Your task to perform on an android device: Search for bose quietcomfort 35 on amazon.com, select the first entry, and add it to the cart. Image 0: 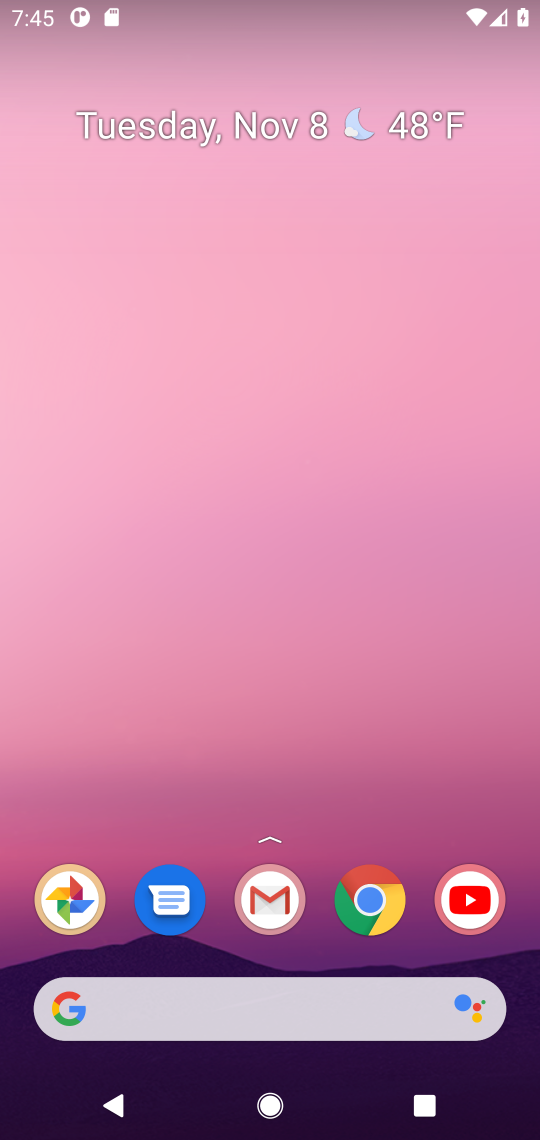
Step 0: drag from (267, 956) to (271, 175)
Your task to perform on an android device: Search for bose quietcomfort 35 on amazon.com, select the first entry, and add it to the cart. Image 1: 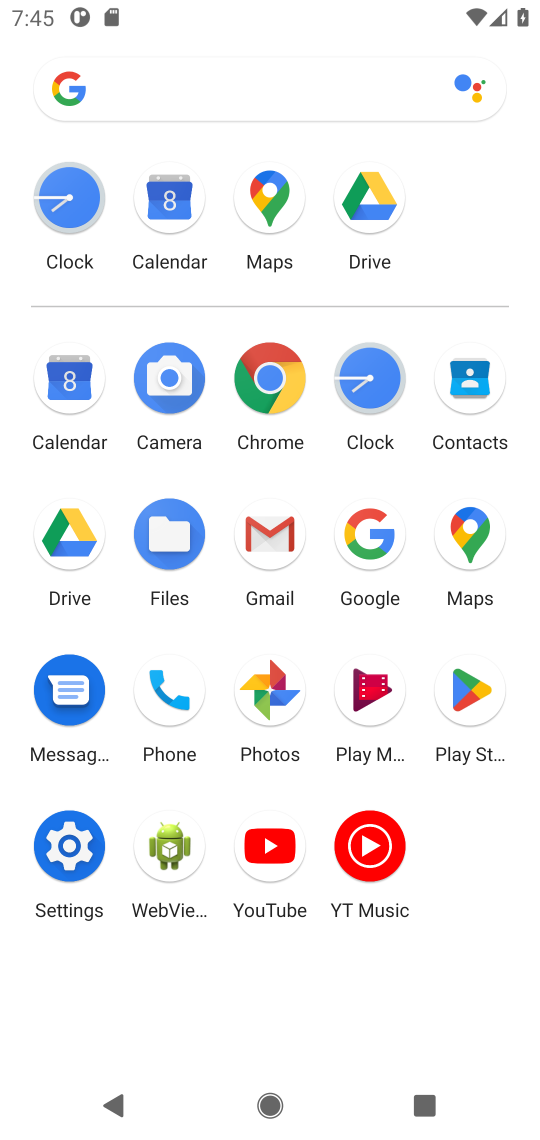
Step 1: click (368, 539)
Your task to perform on an android device: Search for bose quietcomfort 35 on amazon.com, select the first entry, and add it to the cart. Image 2: 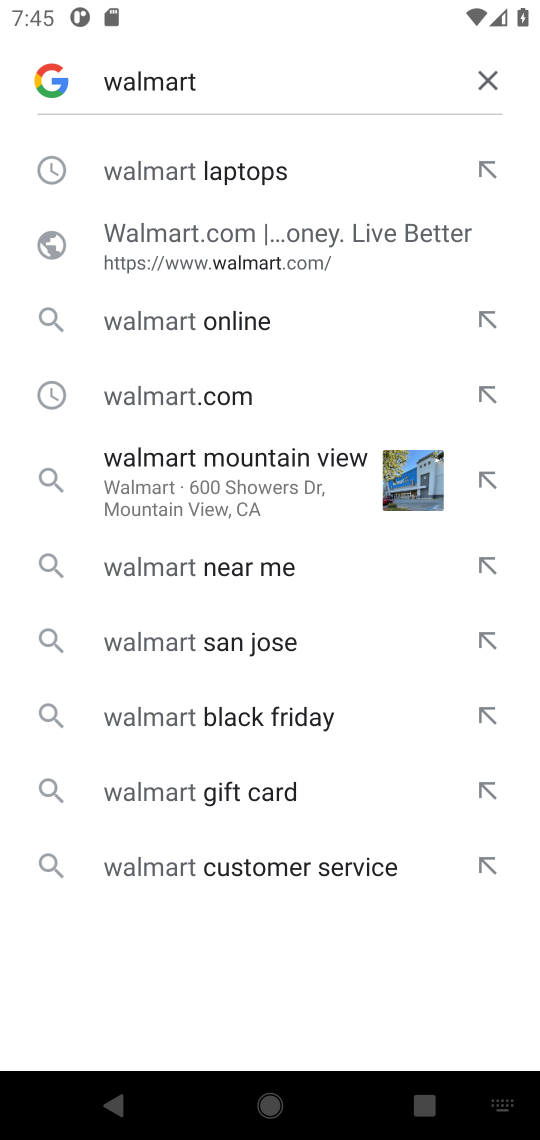
Step 2: click (477, 89)
Your task to perform on an android device: Search for bose quietcomfort 35 on amazon.com, select the first entry, and add it to the cart. Image 3: 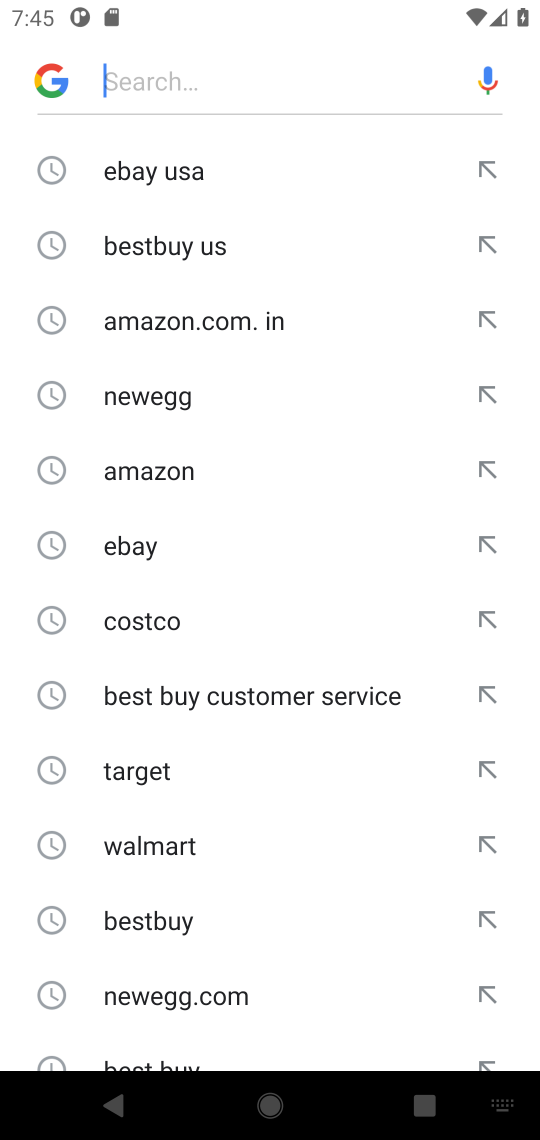
Step 3: click (226, 72)
Your task to perform on an android device: Search for bose quietcomfort 35 on amazon.com, select the first entry, and add it to the cart. Image 4: 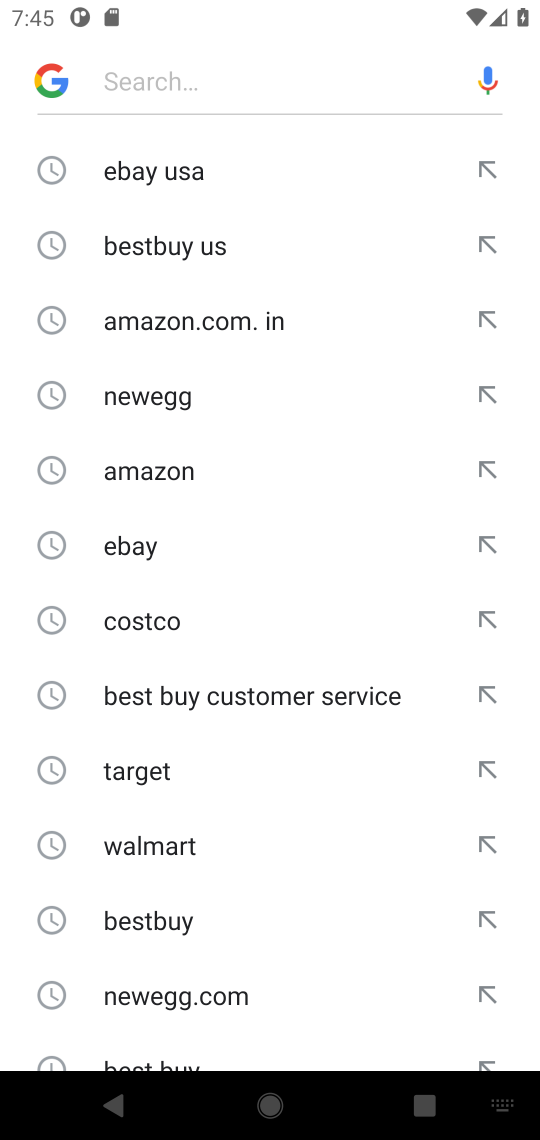
Step 4: click (266, 63)
Your task to perform on an android device: Search for bose quietcomfort 35 on amazon.com, select the first entry, and add it to the cart. Image 5: 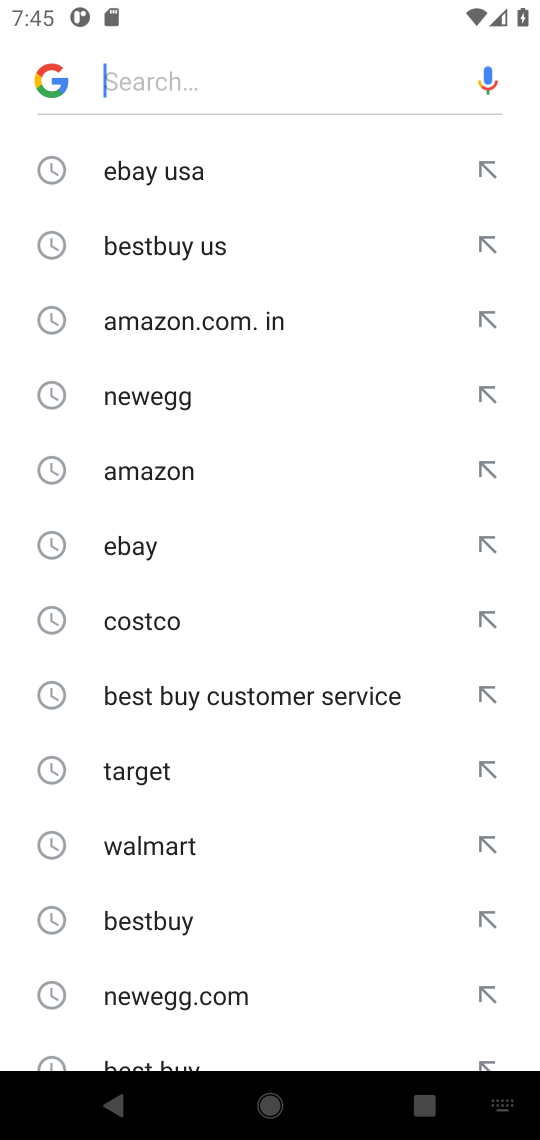
Step 5: type "amazon "
Your task to perform on an android device: Search for bose quietcomfort 35 on amazon.com, select the first entry, and add it to the cart. Image 6: 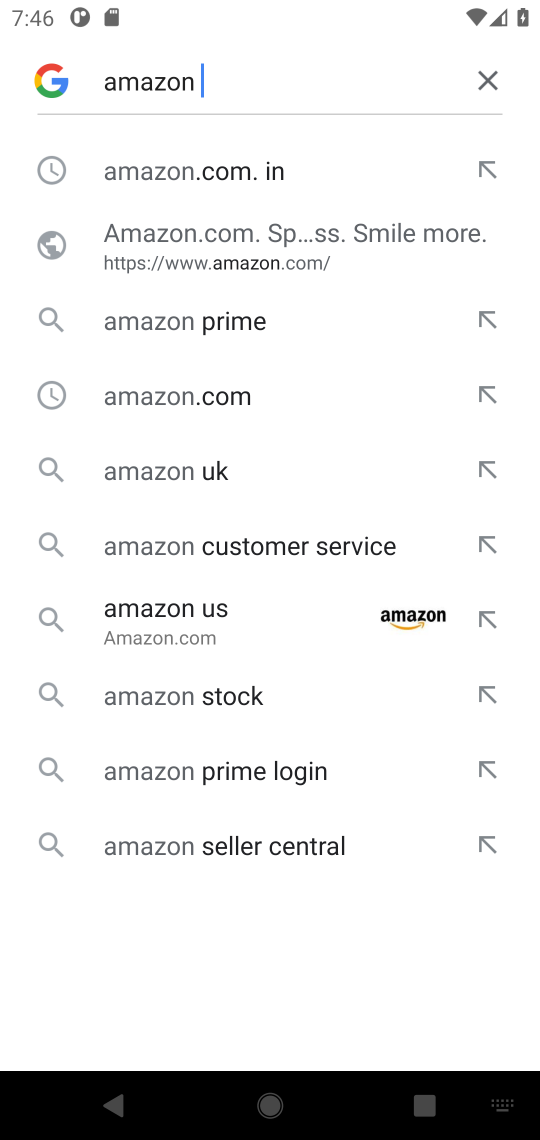
Step 6: click (249, 176)
Your task to perform on an android device: Search for bose quietcomfort 35 on amazon.com, select the first entry, and add it to the cart. Image 7: 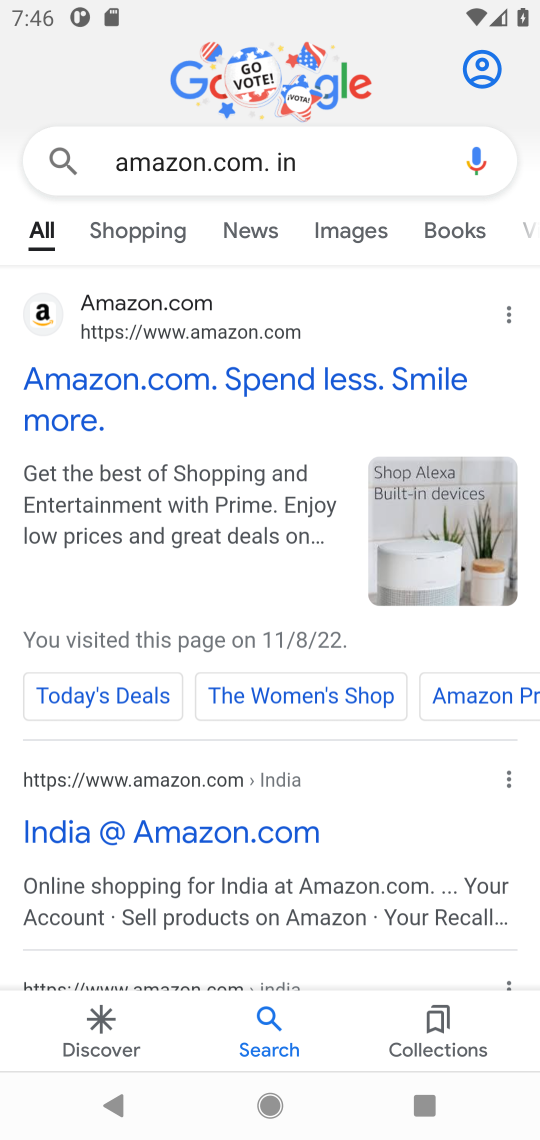
Step 7: click (37, 299)
Your task to perform on an android device: Search for bose quietcomfort 35 on amazon.com, select the first entry, and add it to the cart. Image 8: 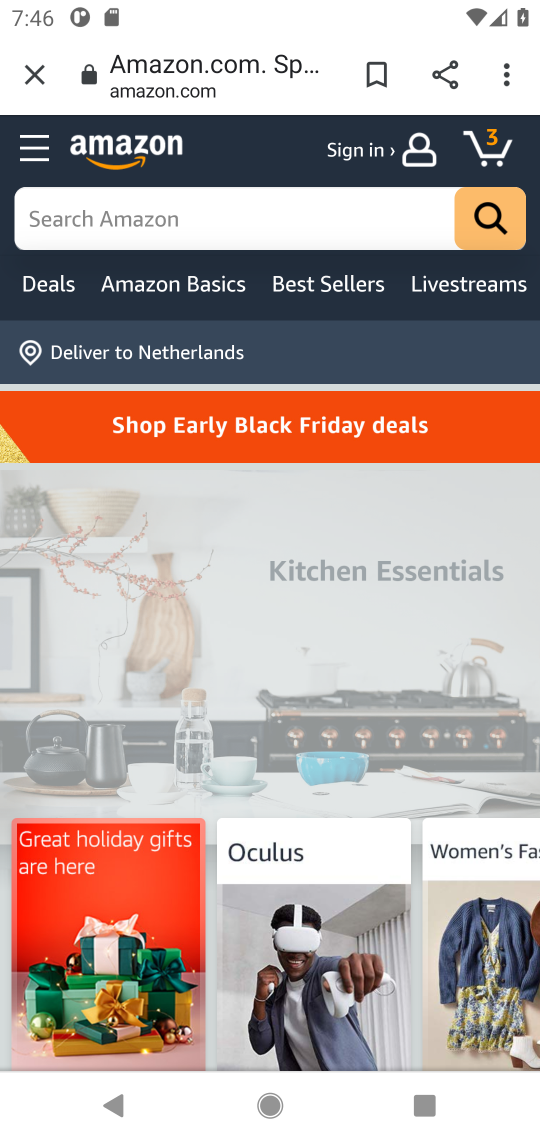
Step 8: click (235, 209)
Your task to perform on an android device: Search for bose quietcomfort 35 on amazon.com, select the first entry, and add it to the cart. Image 9: 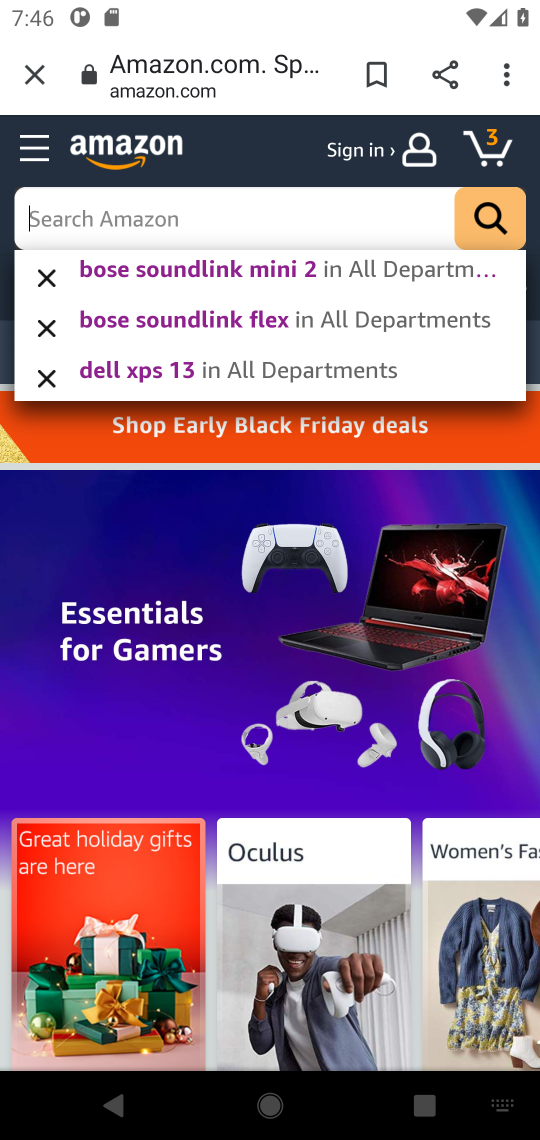
Step 9: type "bose quietcomfort 35 "
Your task to perform on an android device: Search for bose quietcomfort 35 on amazon.com, select the first entry, and add it to the cart. Image 10: 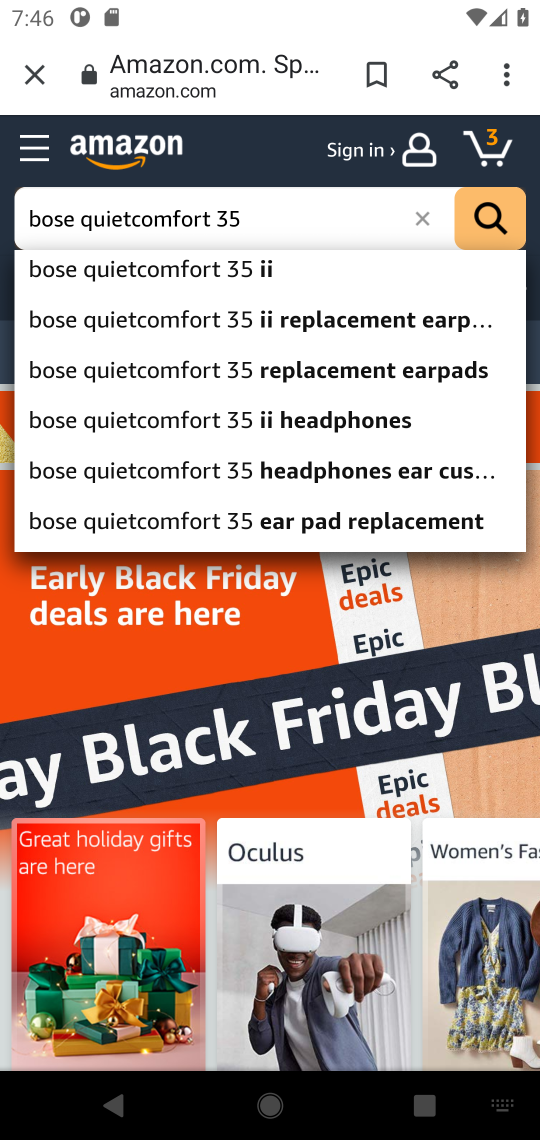
Step 10: click (241, 266)
Your task to perform on an android device: Search for bose quietcomfort 35 on amazon.com, select the first entry, and add it to the cart. Image 11: 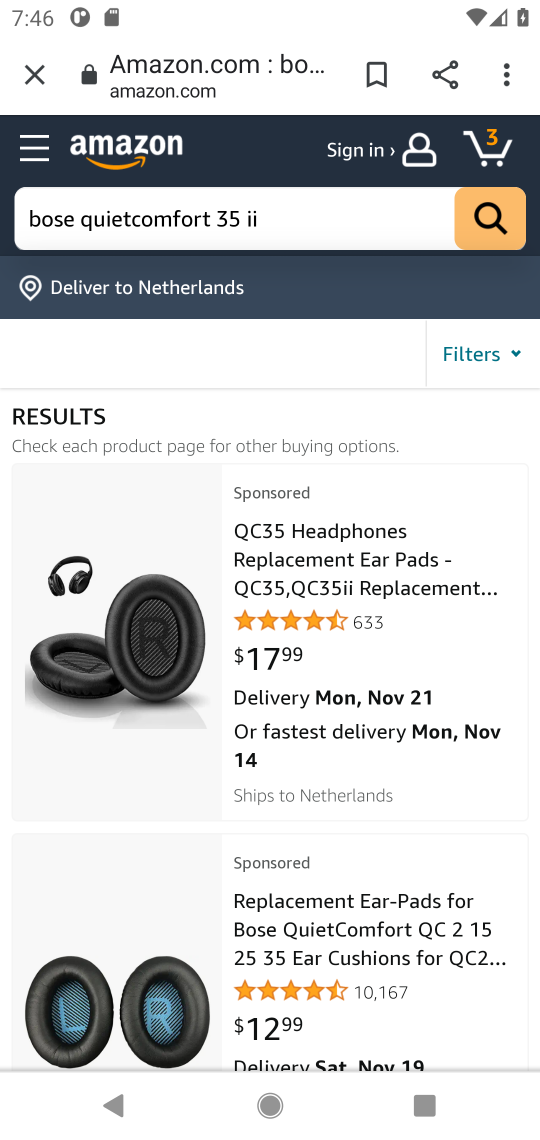
Step 11: drag from (351, 963) to (387, 456)
Your task to perform on an android device: Search for bose quietcomfort 35 on amazon.com, select the first entry, and add it to the cart. Image 12: 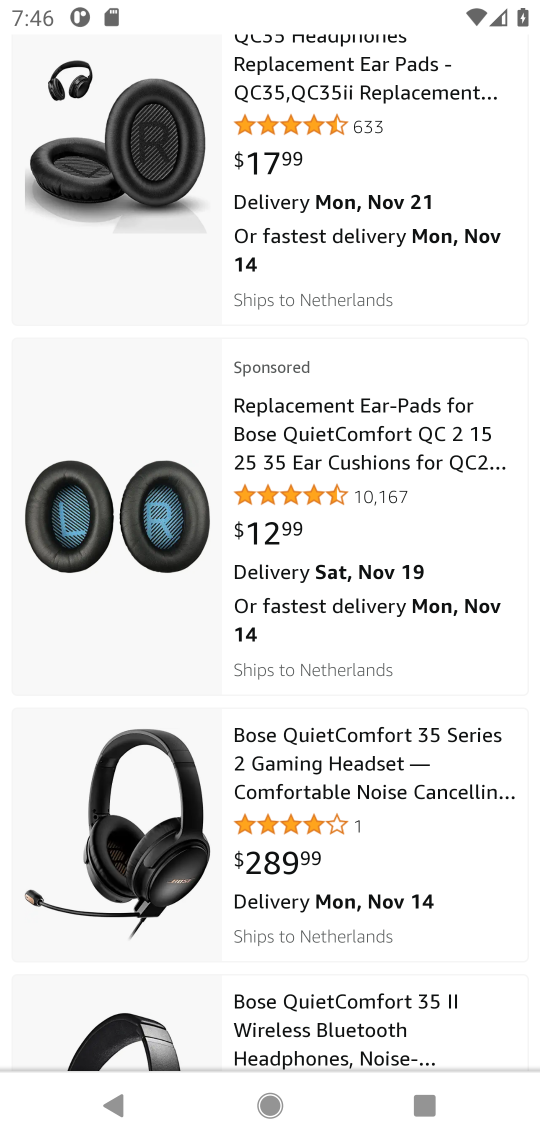
Step 12: click (339, 740)
Your task to perform on an android device: Search for bose quietcomfort 35 on amazon.com, select the first entry, and add it to the cart. Image 13: 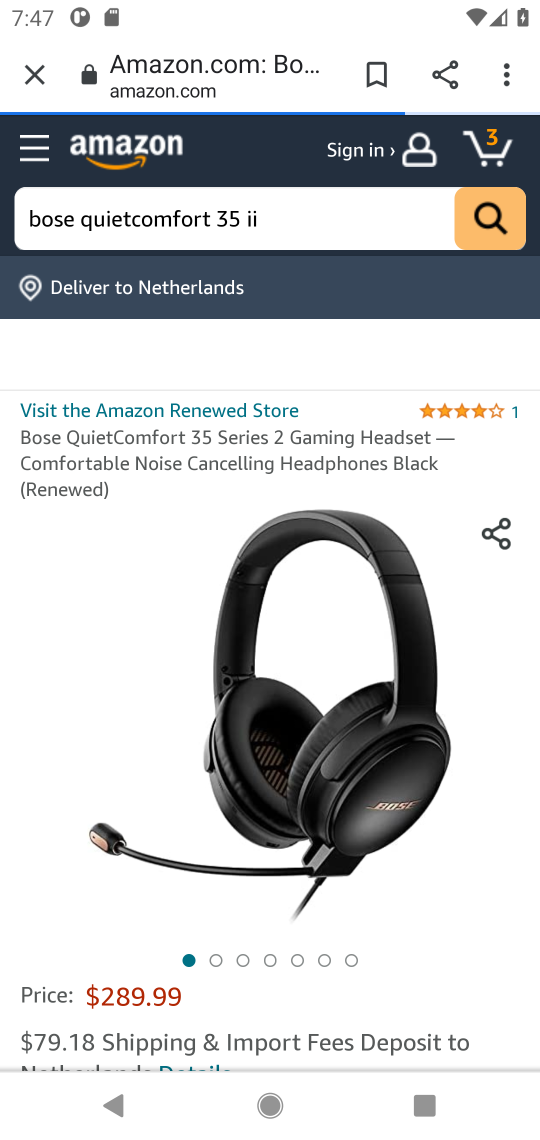
Step 13: drag from (323, 863) to (332, 443)
Your task to perform on an android device: Search for bose quietcomfort 35 on amazon.com, select the first entry, and add it to the cart. Image 14: 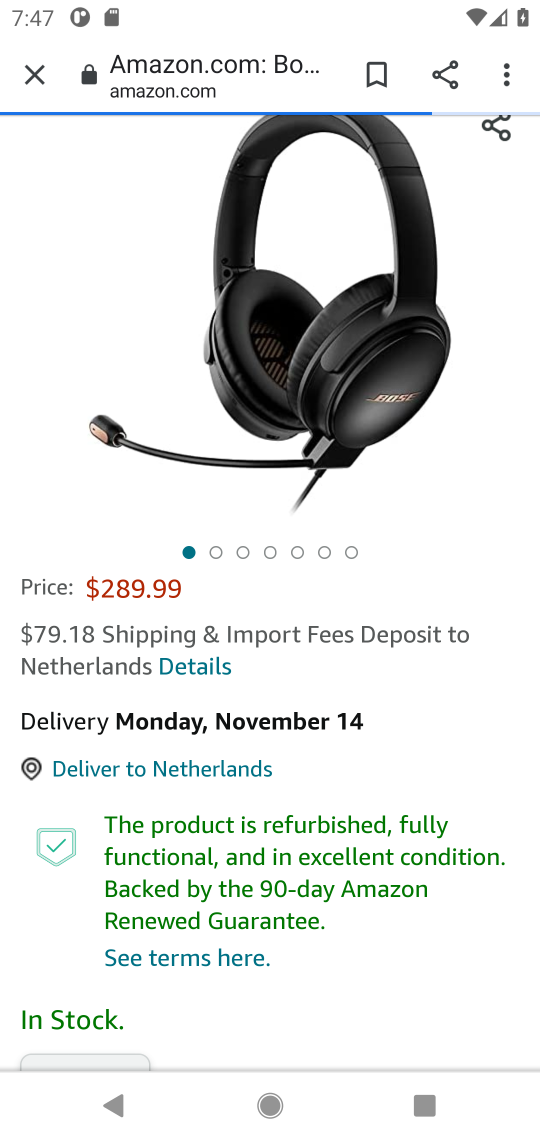
Step 14: drag from (311, 867) to (332, 417)
Your task to perform on an android device: Search for bose quietcomfort 35 on amazon.com, select the first entry, and add it to the cart. Image 15: 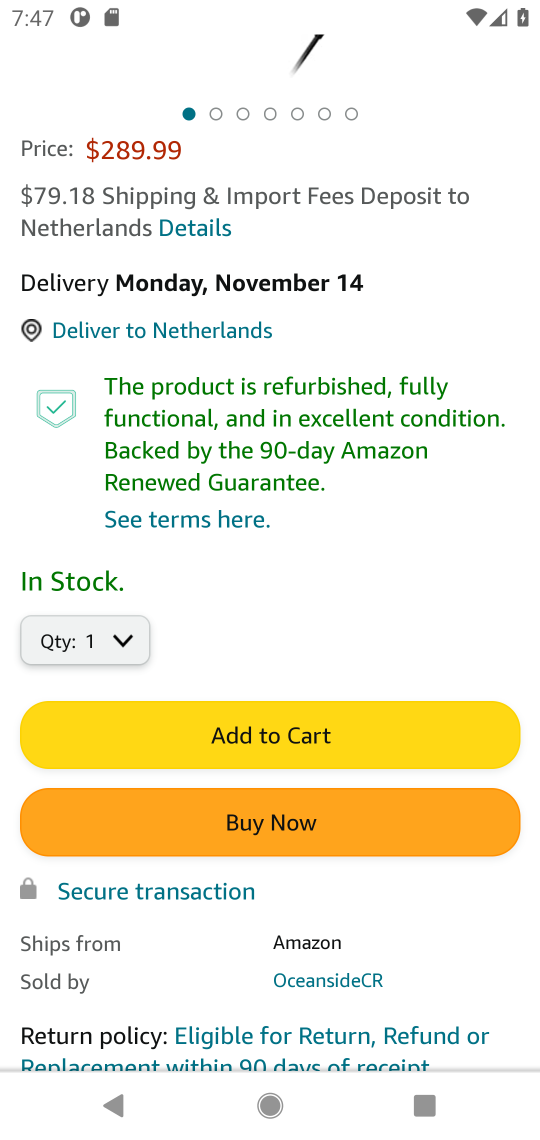
Step 15: click (289, 723)
Your task to perform on an android device: Search for bose quietcomfort 35 on amazon.com, select the first entry, and add it to the cart. Image 16: 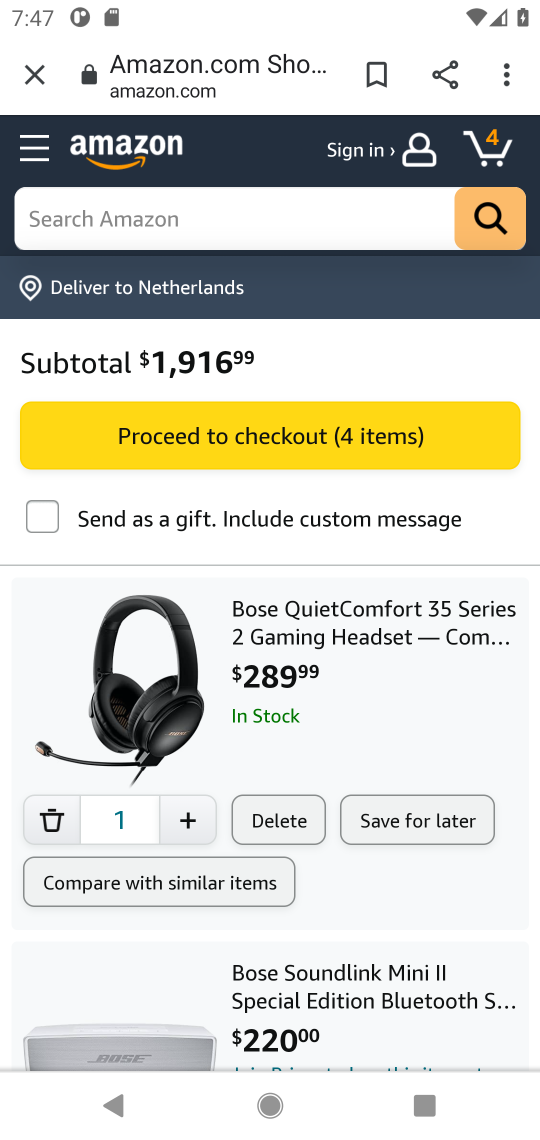
Step 16: task complete